Your task to perform on an android device: open app "ColorNote Notepad Notes" (install if not already installed) and go to login screen Image 0: 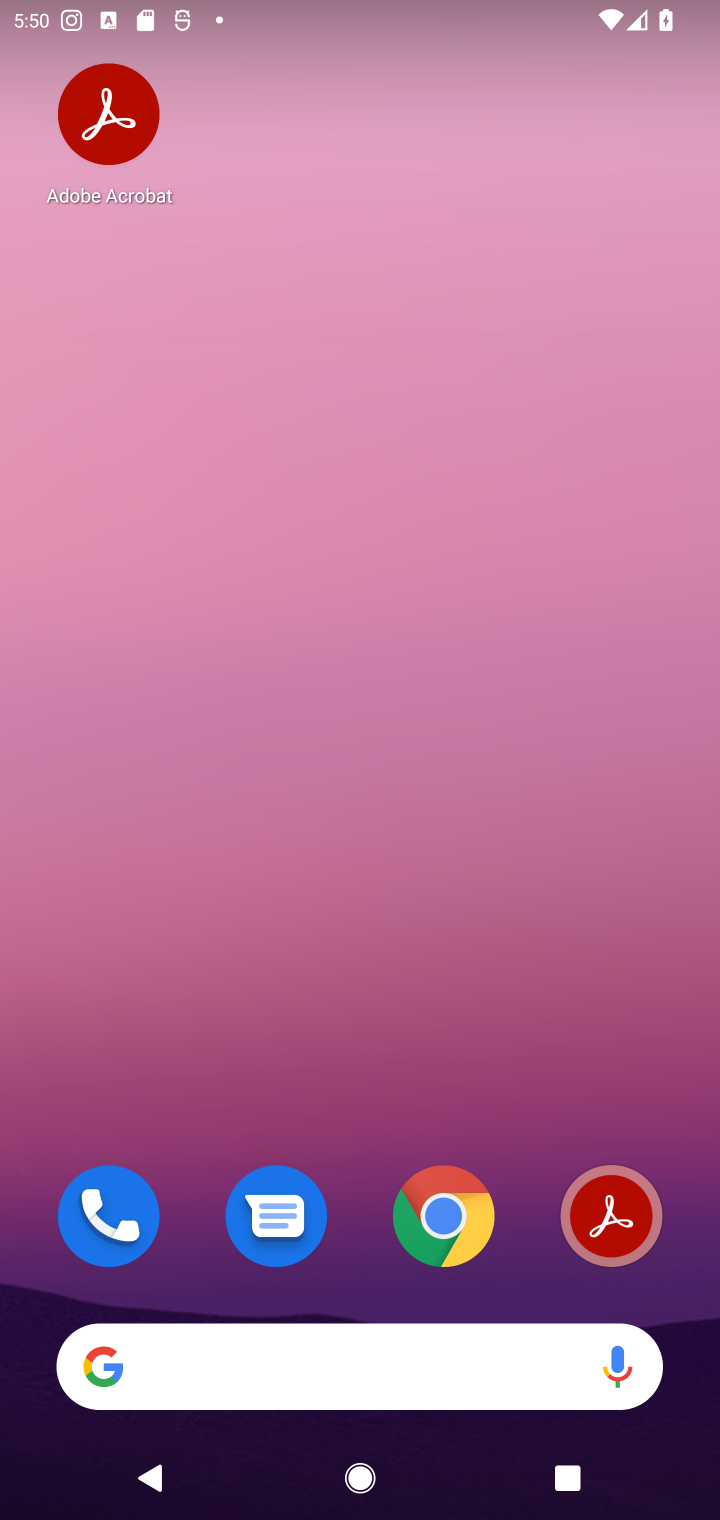
Step 0: drag from (363, 818) to (382, 230)
Your task to perform on an android device: open app "ColorNote Notepad Notes" (install if not already installed) and go to login screen Image 1: 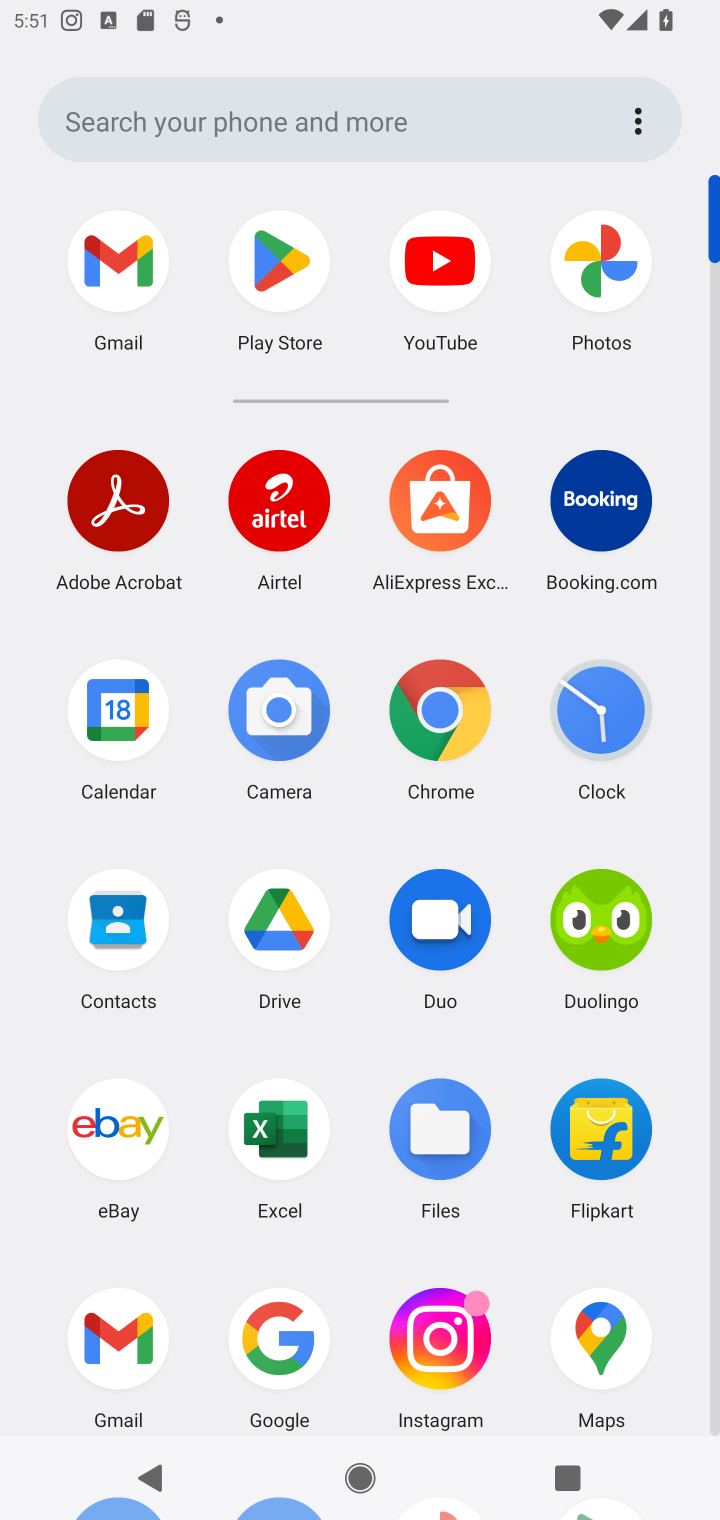
Step 1: click (280, 285)
Your task to perform on an android device: open app "ColorNote Notepad Notes" (install if not already installed) and go to login screen Image 2: 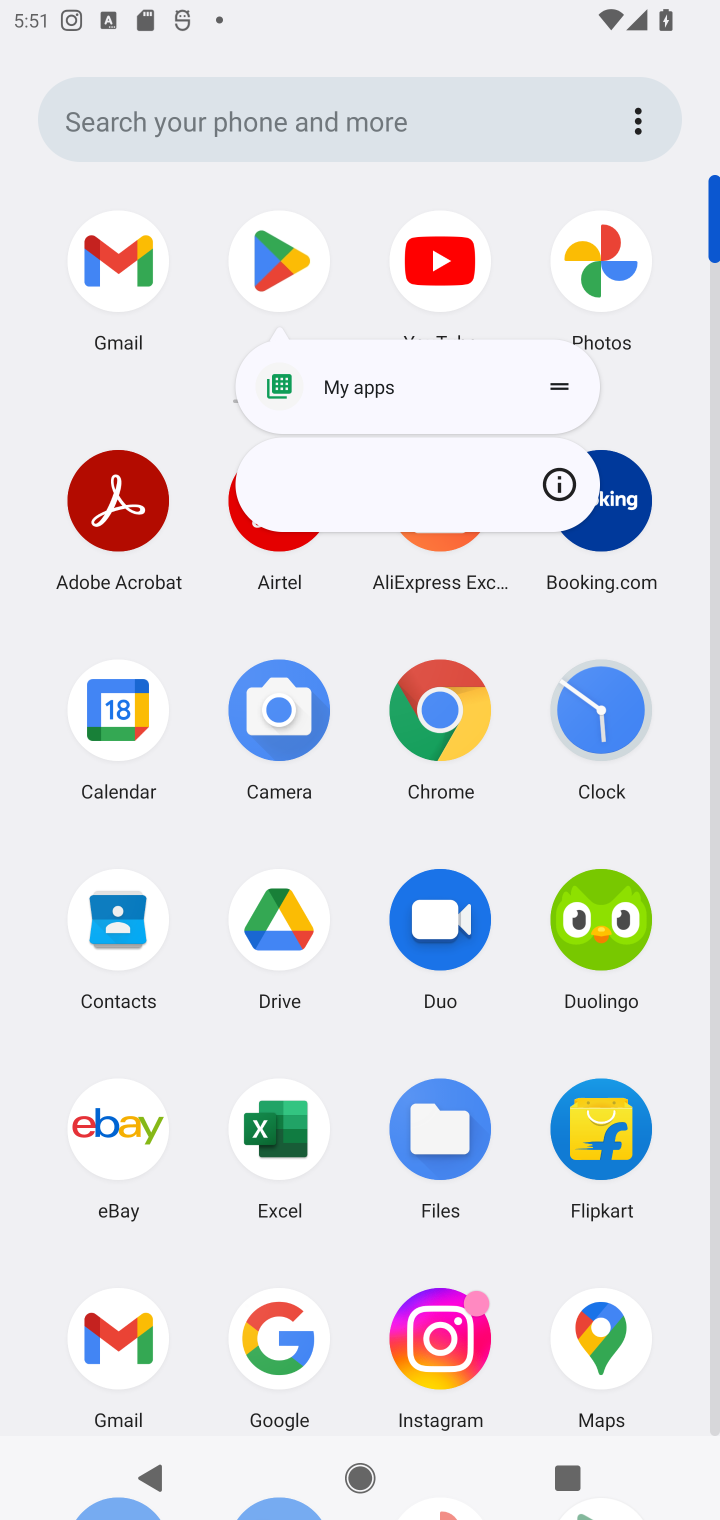
Step 2: click (266, 290)
Your task to perform on an android device: open app "ColorNote Notepad Notes" (install if not already installed) and go to login screen Image 3: 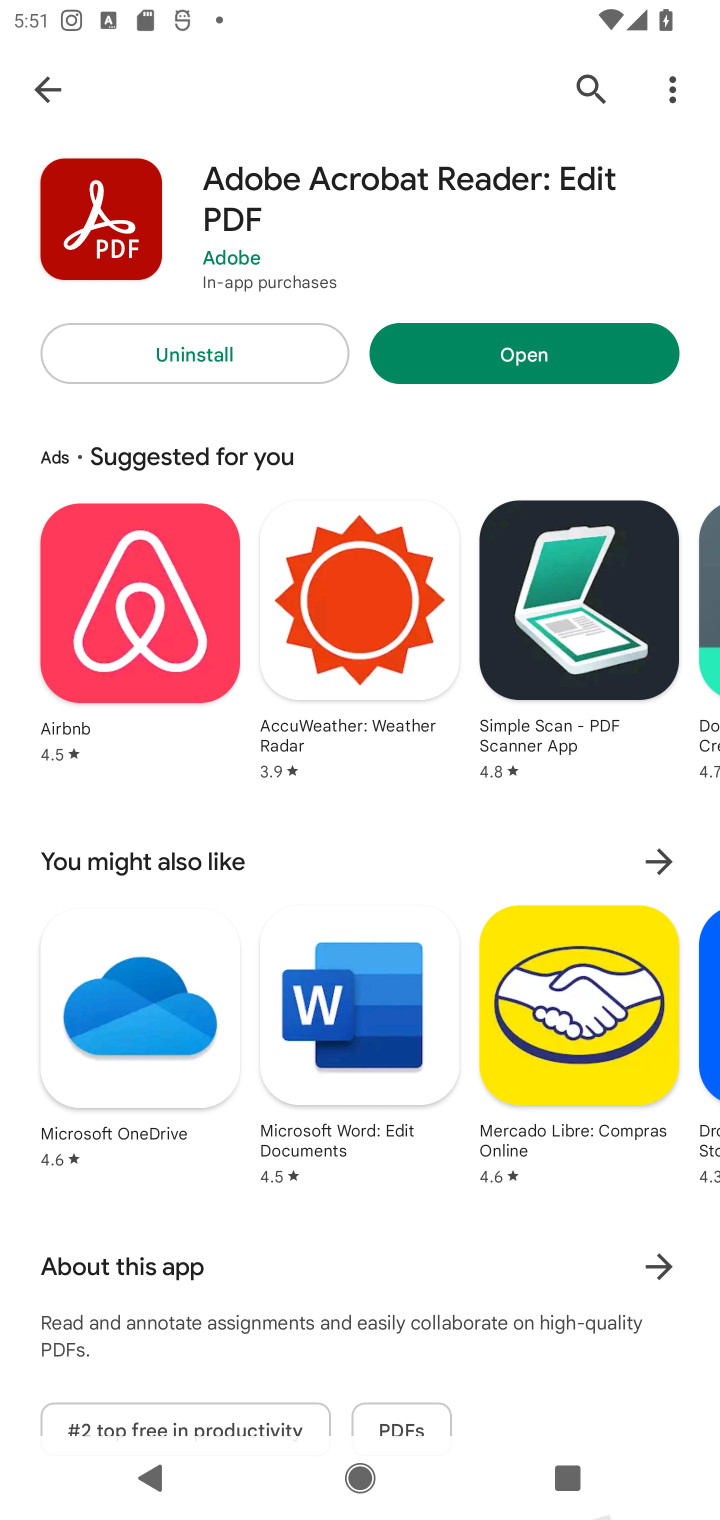
Step 3: click (586, 99)
Your task to perform on an android device: open app "ColorNote Notepad Notes" (install if not already installed) and go to login screen Image 4: 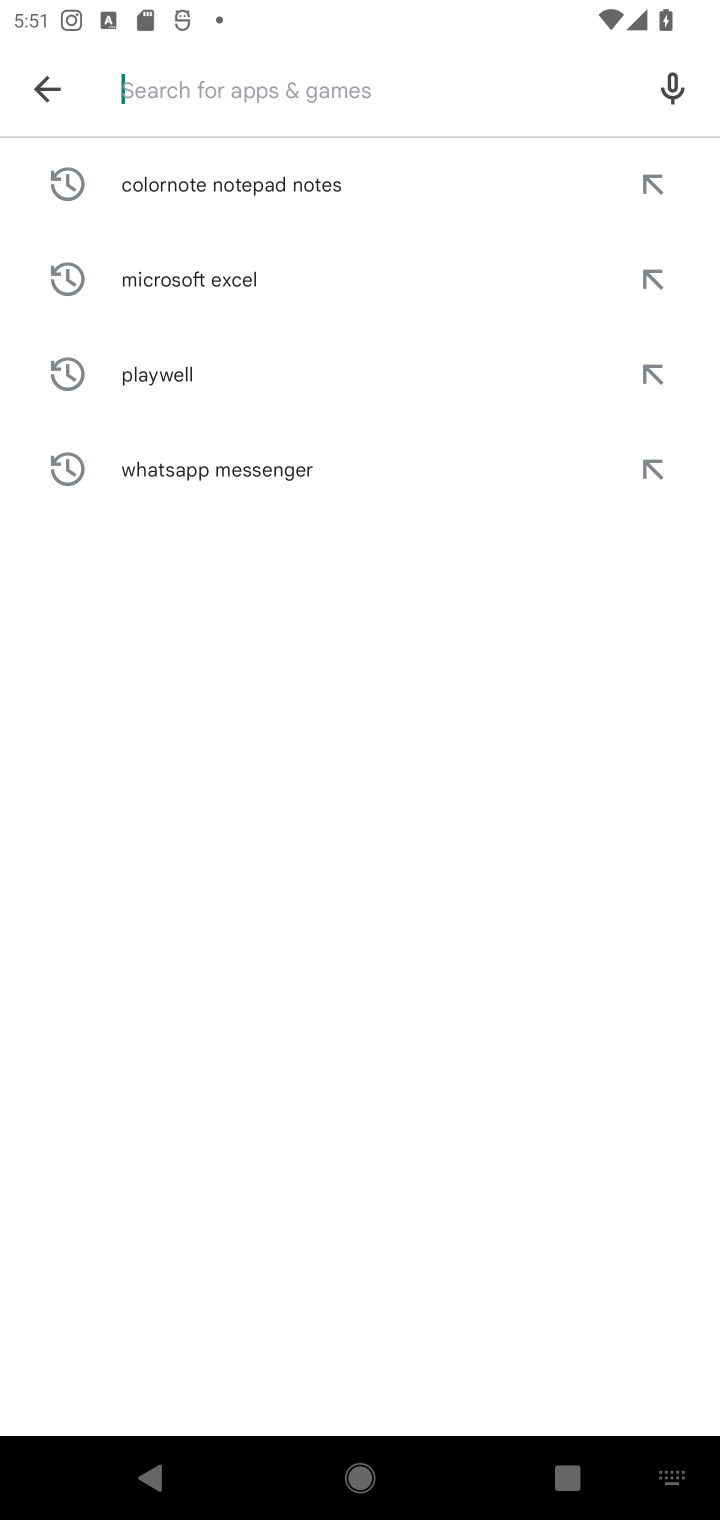
Step 4: type "ColorNote Notepad Note"
Your task to perform on an android device: open app "ColorNote Notepad Notes" (install if not already installed) and go to login screen Image 5: 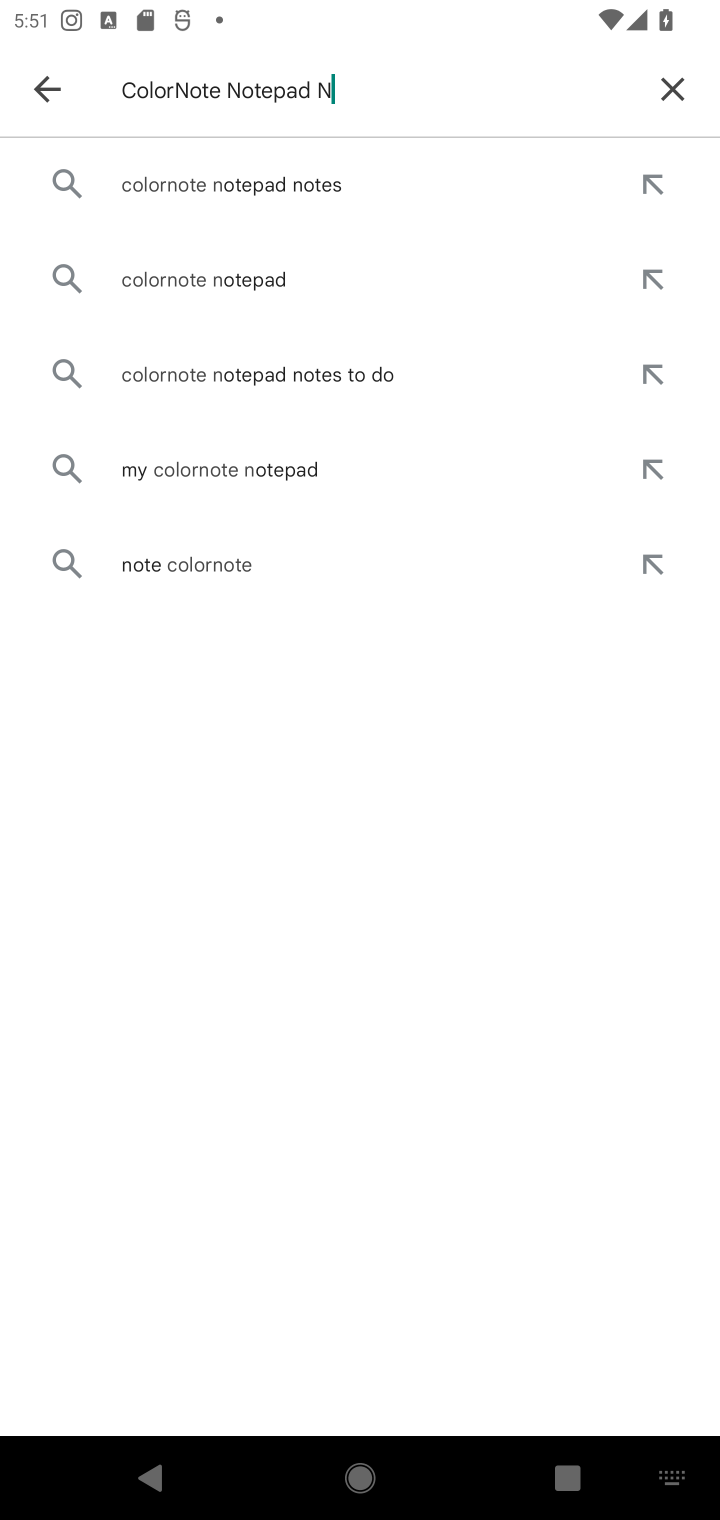
Step 5: type ""
Your task to perform on an android device: open app "ColorNote Notepad Notes" (install if not already installed) and go to login screen Image 6: 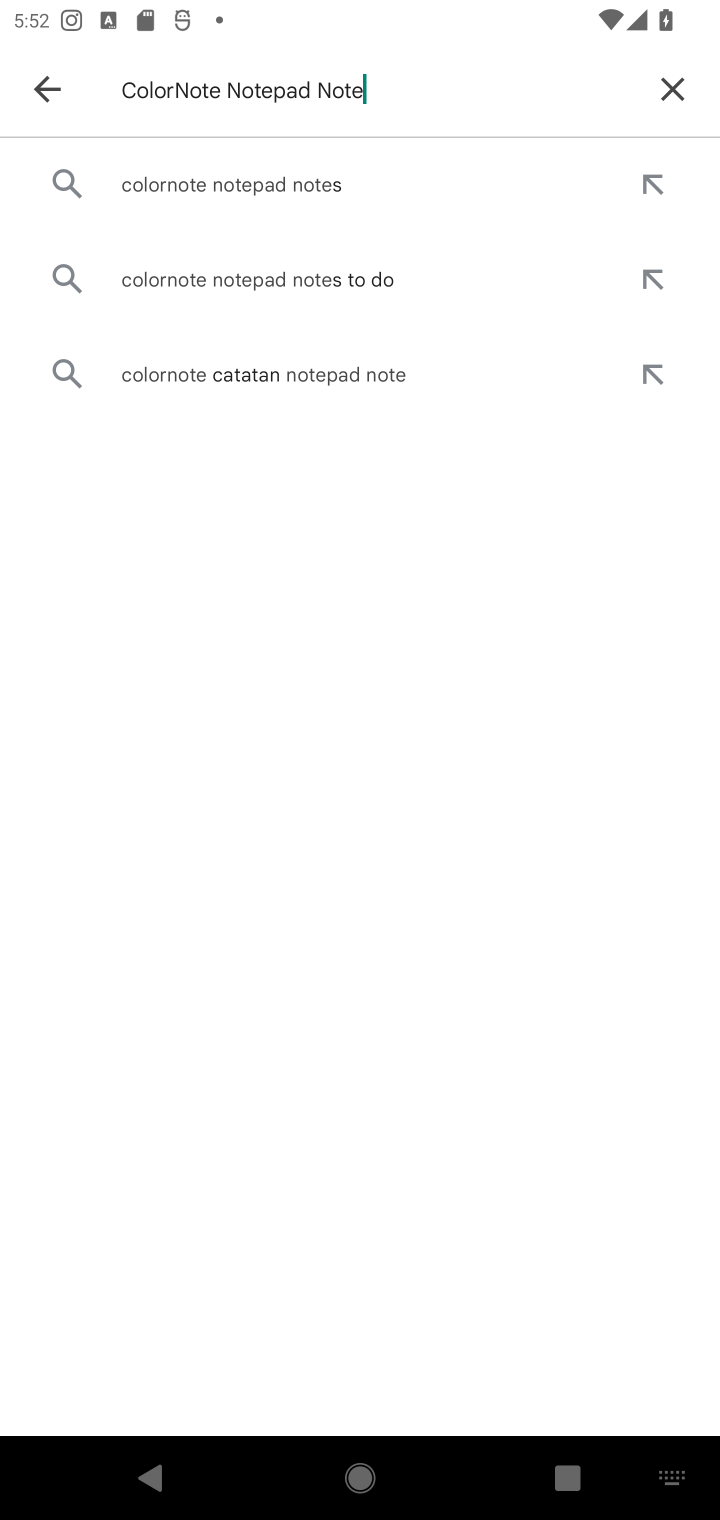
Step 6: click (341, 181)
Your task to perform on an android device: open app "ColorNote Notepad Notes" (install if not already installed) and go to login screen Image 7: 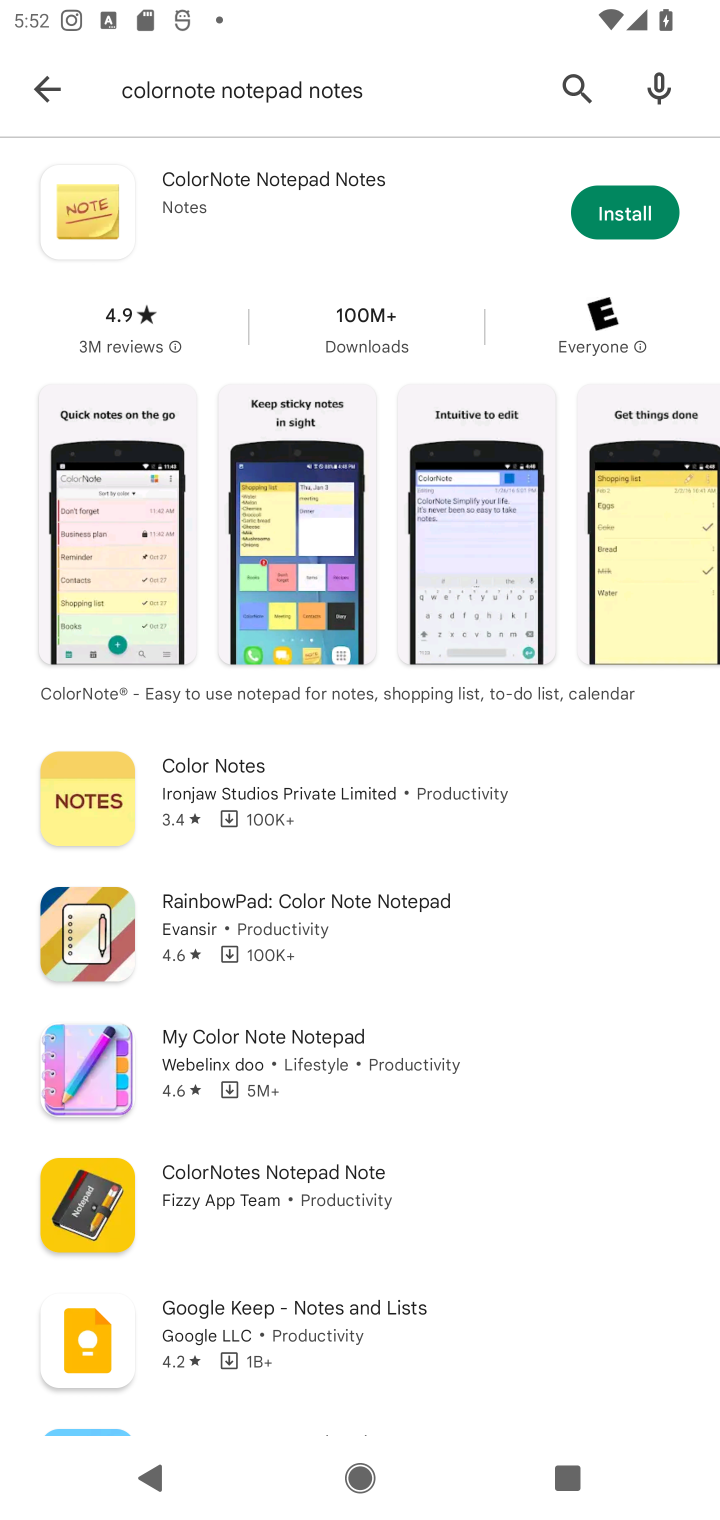
Step 7: click (593, 214)
Your task to perform on an android device: open app "ColorNote Notepad Notes" (install if not already installed) and go to login screen Image 8: 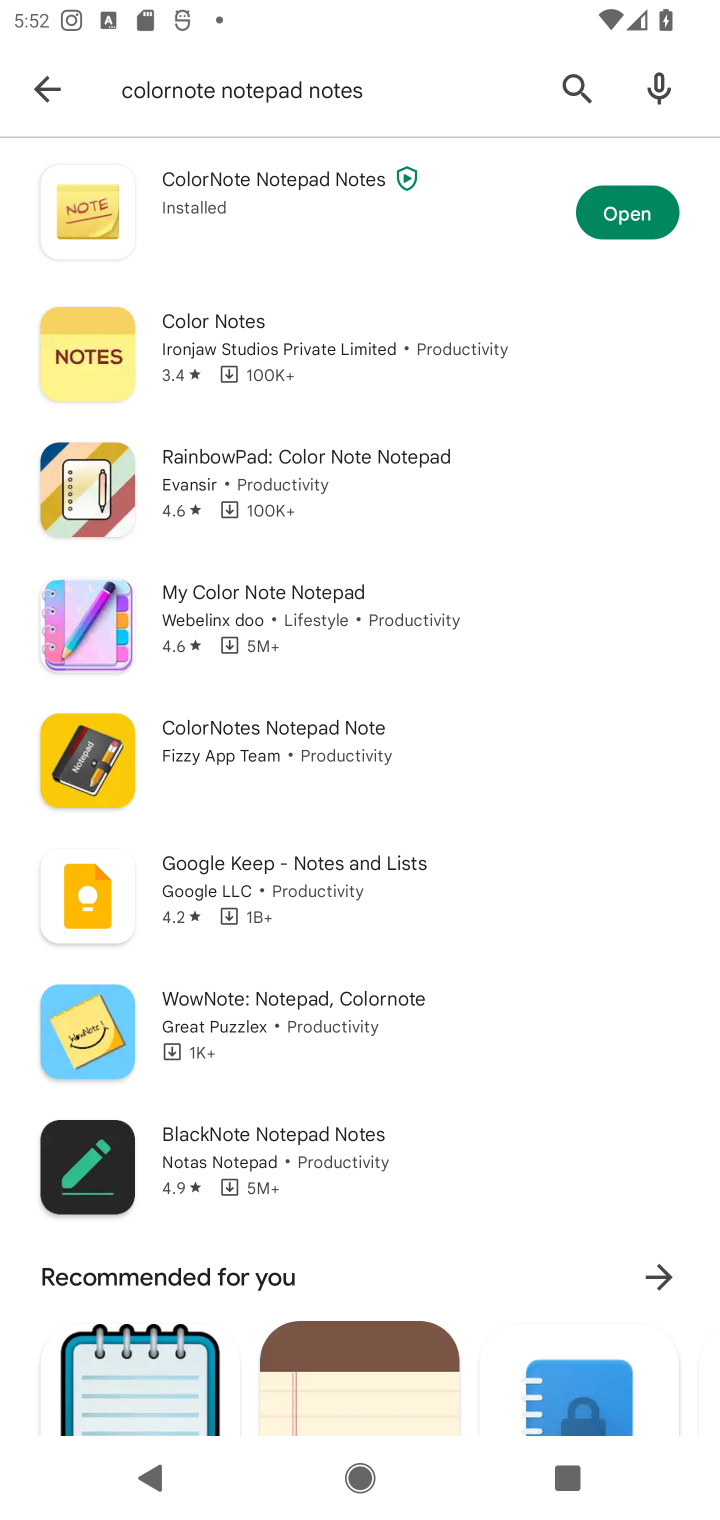
Step 8: click (623, 222)
Your task to perform on an android device: open app "ColorNote Notepad Notes" (install if not already installed) and go to login screen Image 9: 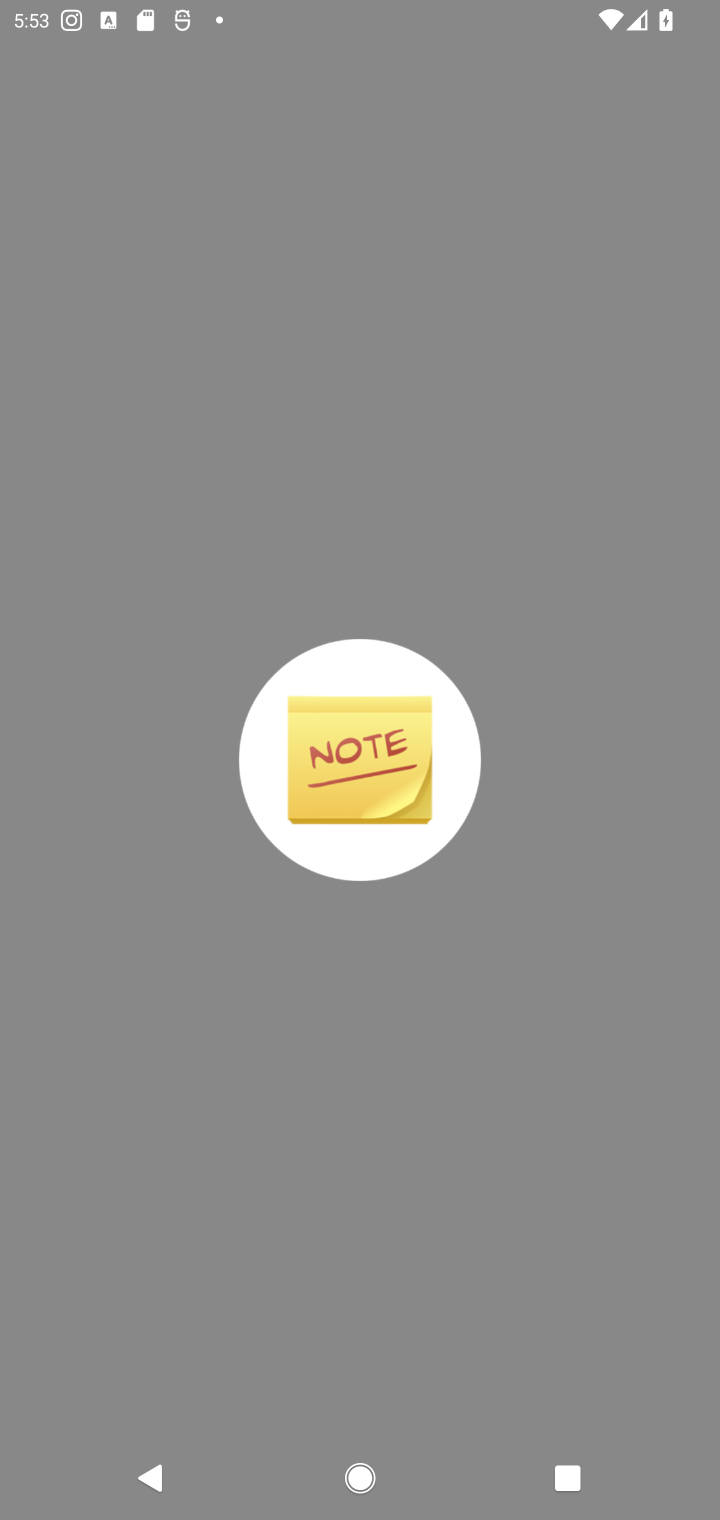
Step 9: task complete